Your task to perform on an android device: turn pop-ups on in chrome Image 0: 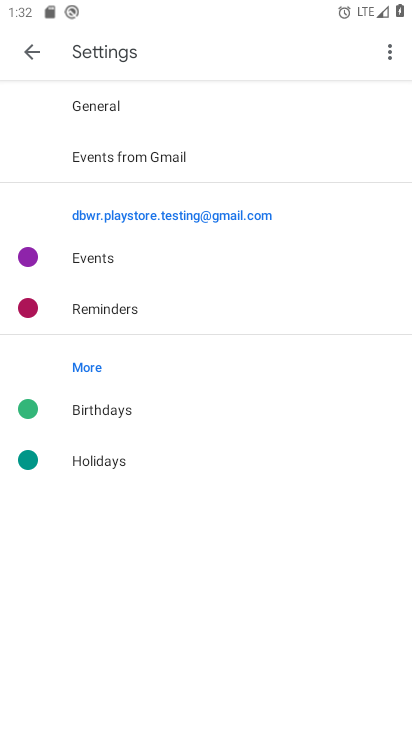
Step 0: press home button
Your task to perform on an android device: turn pop-ups on in chrome Image 1: 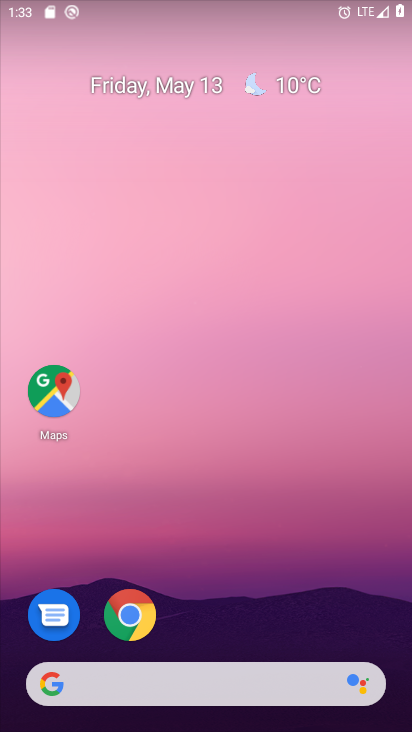
Step 1: click (138, 609)
Your task to perform on an android device: turn pop-ups on in chrome Image 2: 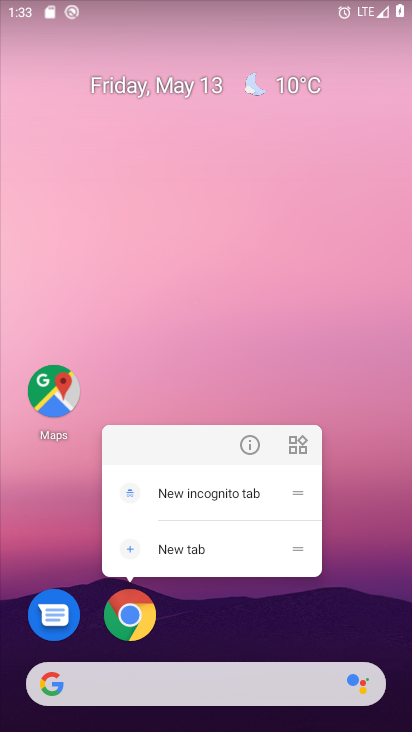
Step 2: click (138, 609)
Your task to perform on an android device: turn pop-ups on in chrome Image 3: 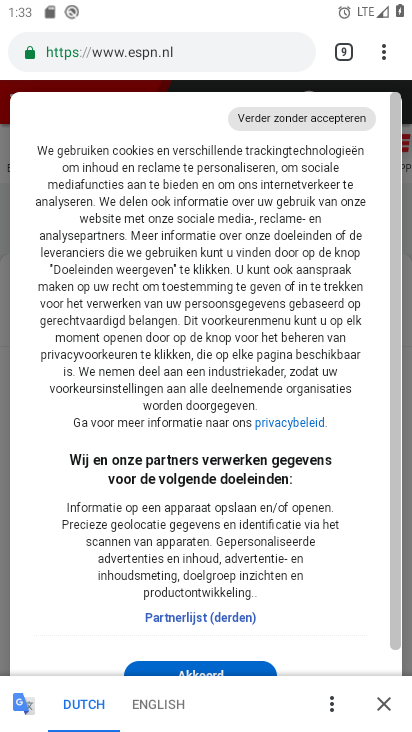
Step 3: click (375, 45)
Your task to perform on an android device: turn pop-ups on in chrome Image 4: 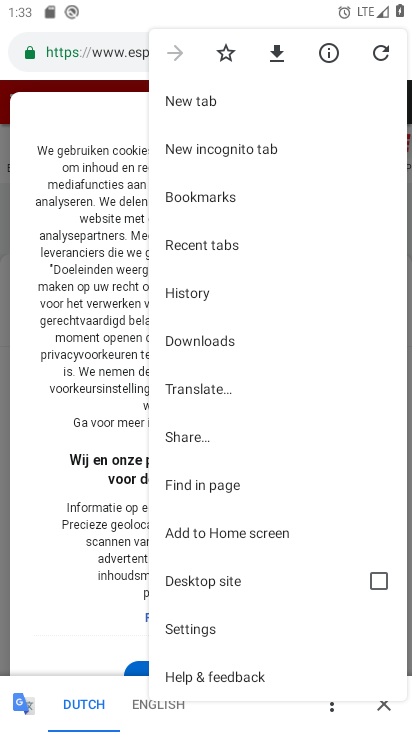
Step 4: click (258, 621)
Your task to perform on an android device: turn pop-ups on in chrome Image 5: 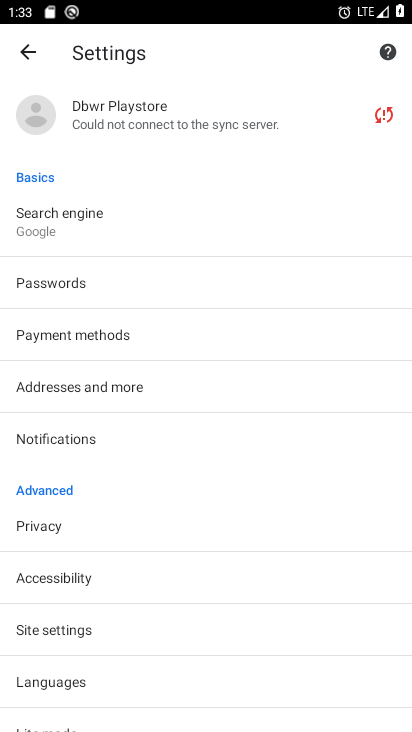
Step 5: click (77, 632)
Your task to perform on an android device: turn pop-ups on in chrome Image 6: 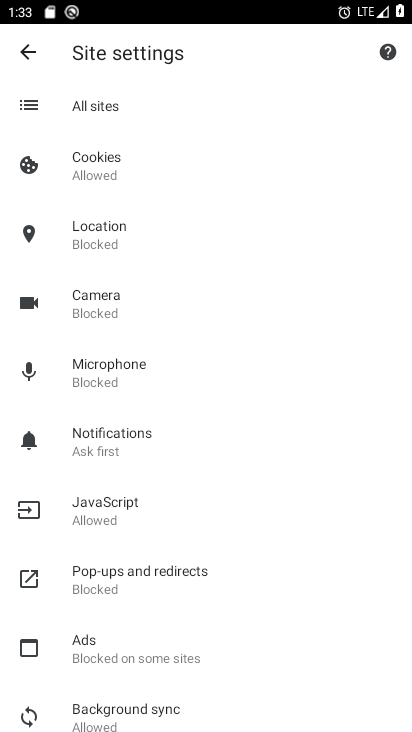
Step 6: drag from (238, 379) to (250, 598)
Your task to perform on an android device: turn pop-ups on in chrome Image 7: 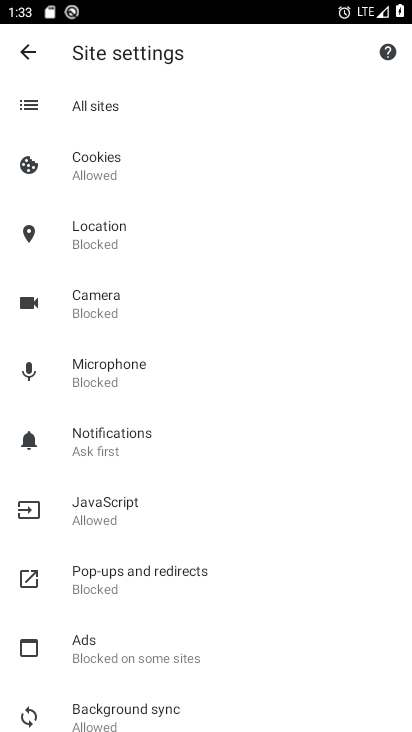
Step 7: click (174, 582)
Your task to perform on an android device: turn pop-ups on in chrome Image 8: 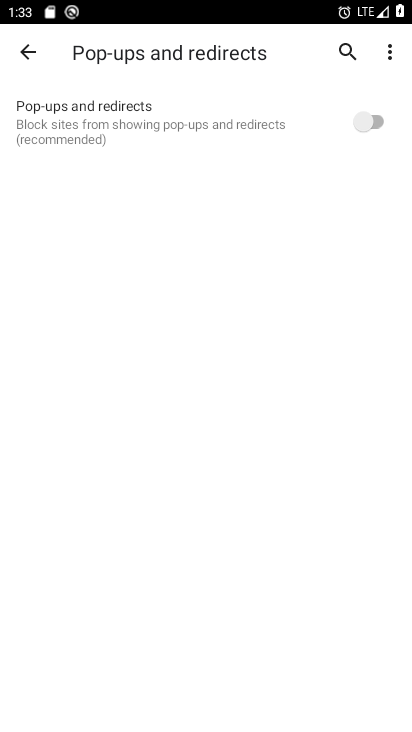
Step 8: click (369, 115)
Your task to perform on an android device: turn pop-ups on in chrome Image 9: 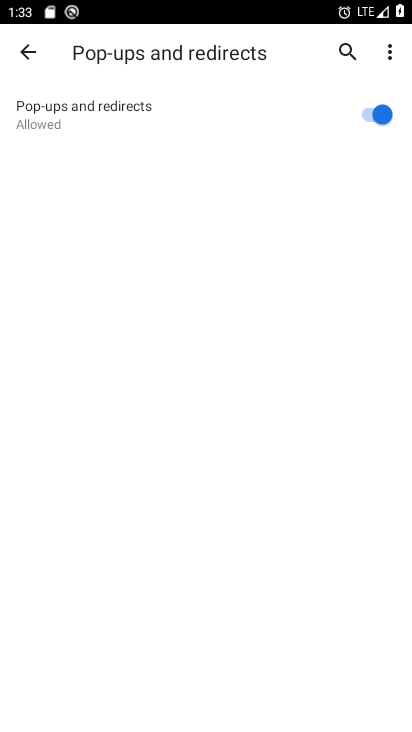
Step 9: task complete